Your task to perform on an android device: find which apps use the phone's location Image 0: 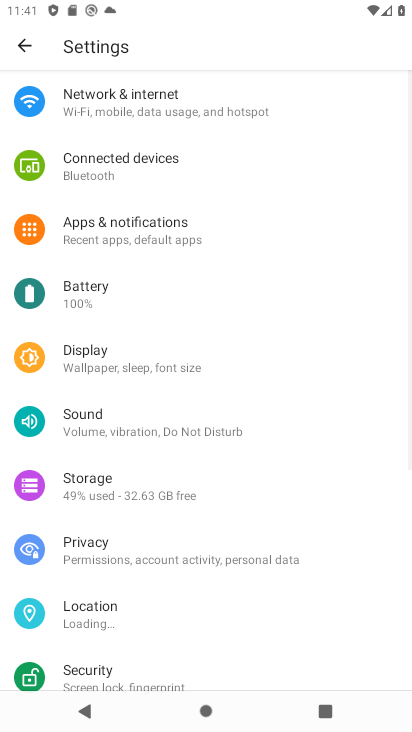
Step 0: press home button
Your task to perform on an android device: find which apps use the phone's location Image 1: 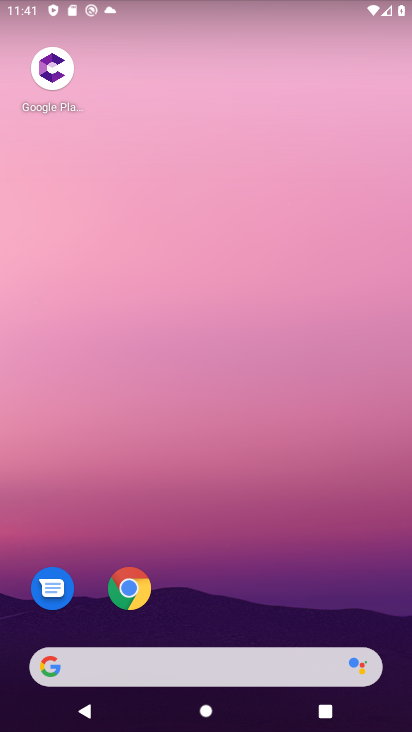
Step 1: drag from (228, 617) to (229, 42)
Your task to perform on an android device: find which apps use the phone's location Image 2: 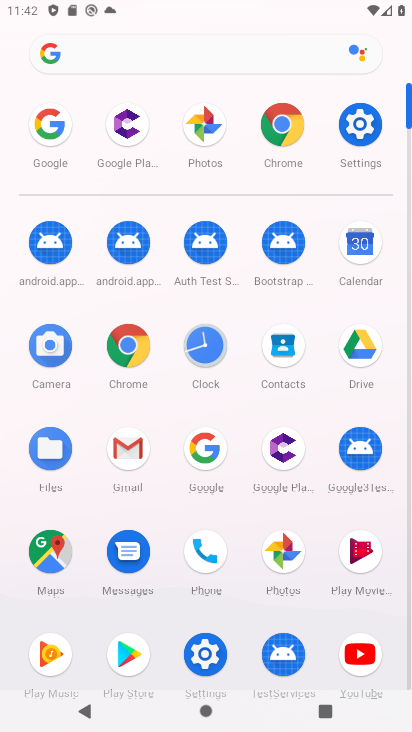
Step 2: click (197, 655)
Your task to perform on an android device: find which apps use the phone's location Image 3: 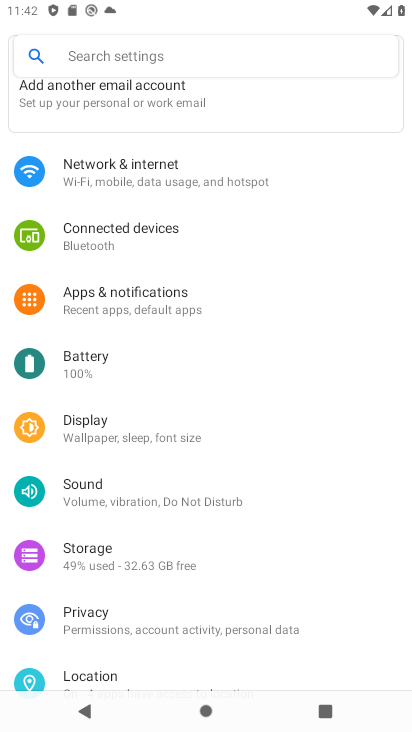
Step 3: drag from (183, 614) to (179, 308)
Your task to perform on an android device: find which apps use the phone's location Image 4: 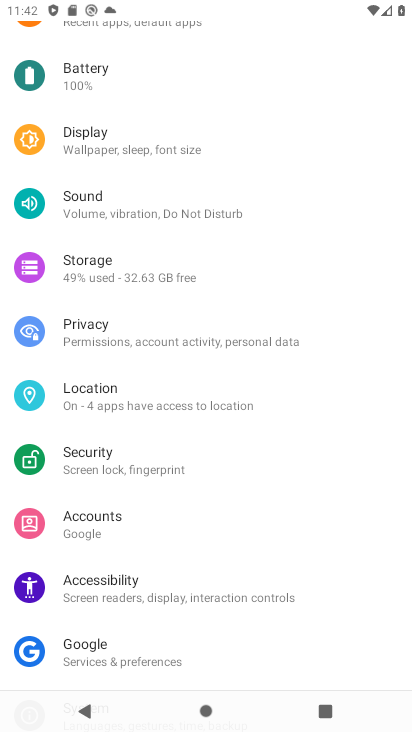
Step 4: click (97, 414)
Your task to perform on an android device: find which apps use the phone's location Image 5: 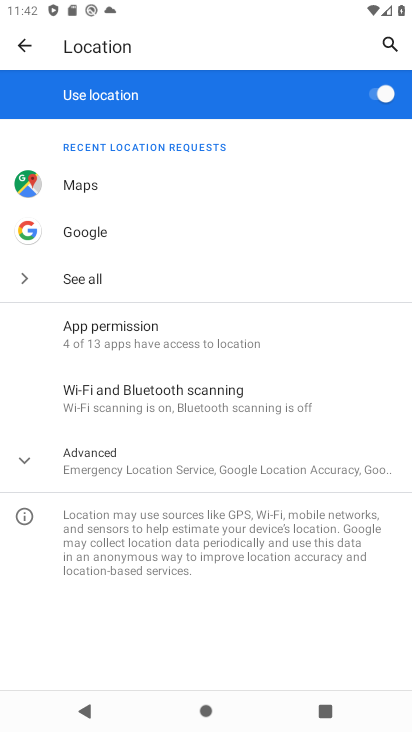
Step 5: click (119, 459)
Your task to perform on an android device: find which apps use the phone's location Image 6: 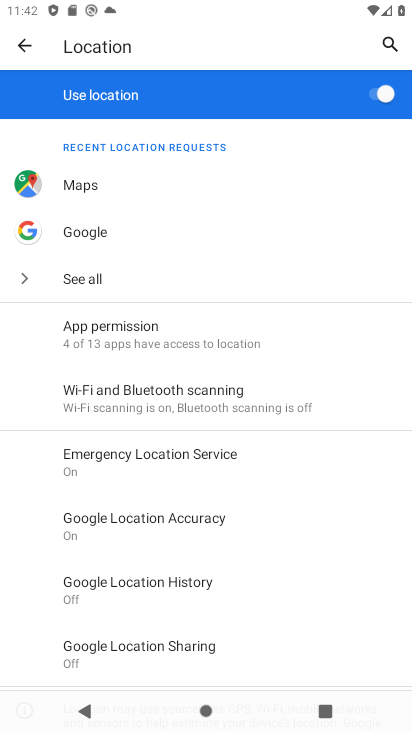
Step 6: click (118, 329)
Your task to perform on an android device: find which apps use the phone's location Image 7: 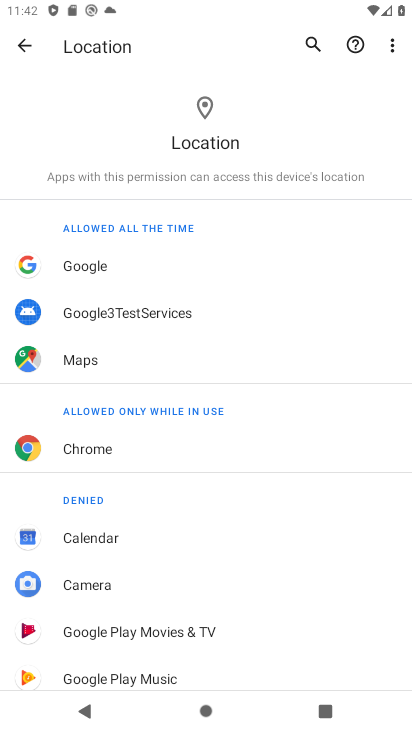
Step 7: task complete